Your task to perform on an android device: set an alarm Image 0: 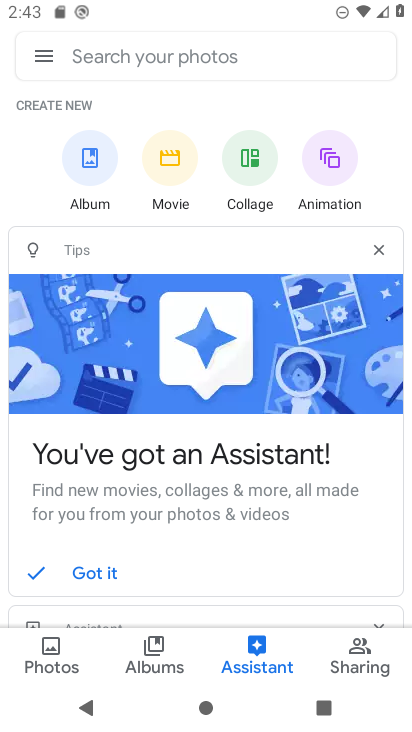
Step 0: press home button
Your task to perform on an android device: set an alarm Image 1: 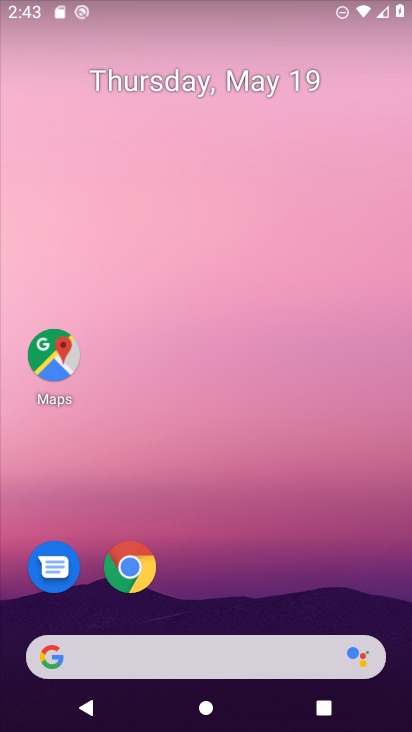
Step 1: drag from (245, 533) to (230, 65)
Your task to perform on an android device: set an alarm Image 2: 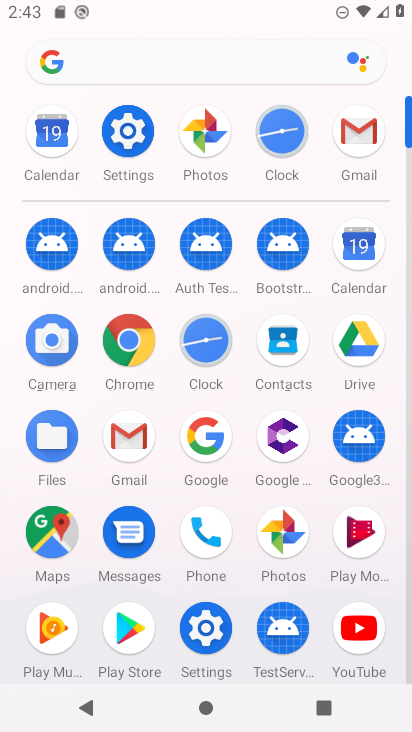
Step 2: click (278, 131)
Your task to perform on an android device: set an alarm Image 3: 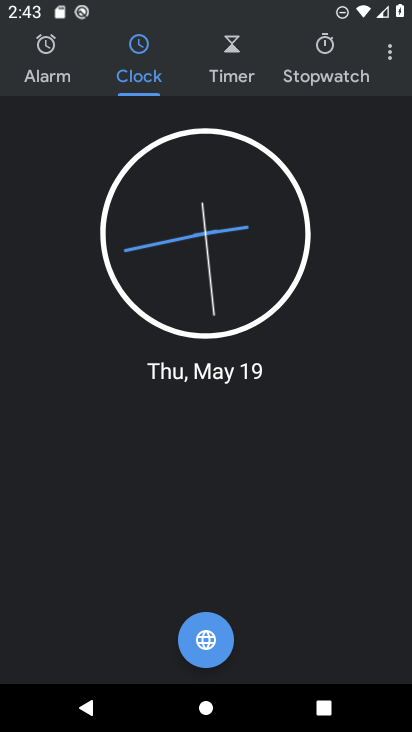
Step 3: click (54, 48)
Your task to perform on an android device: set an alarm Image 4: 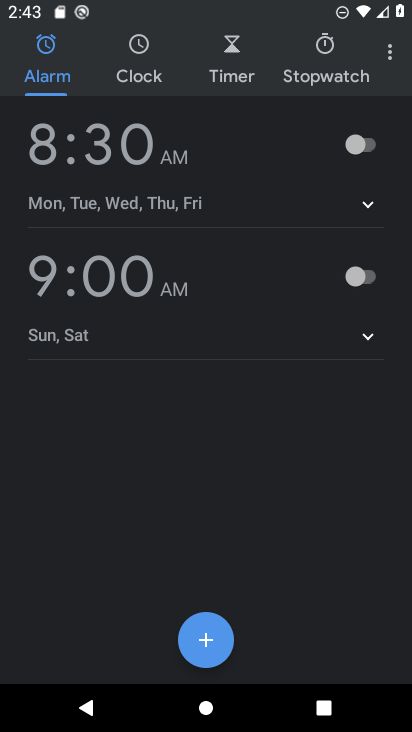
Step 4: click (206, 634)
Your task to perform on an android device: set an alarm Image 5: 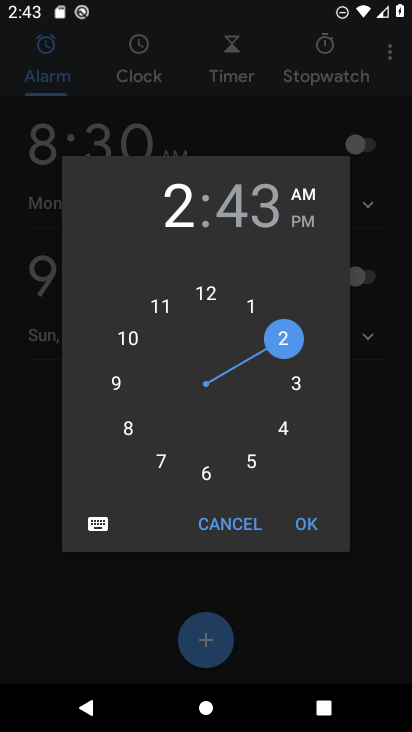
Step 5: click (251, 208)
Your task to perform on an android device: set an alarm Image 6: 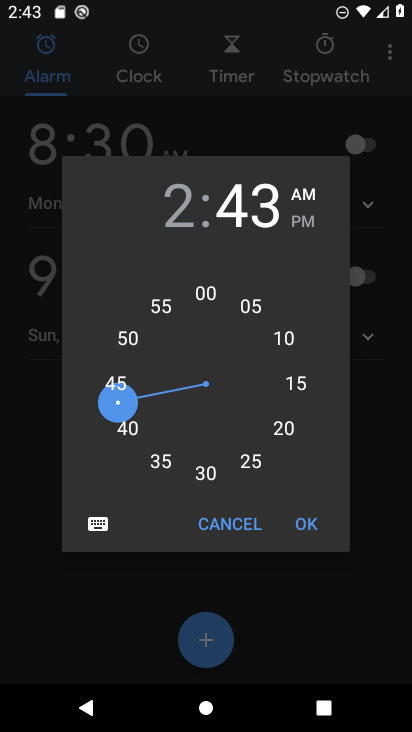
Step 6: click (210, 290)
Your task to perform on an android device: set an alarm Image 7: 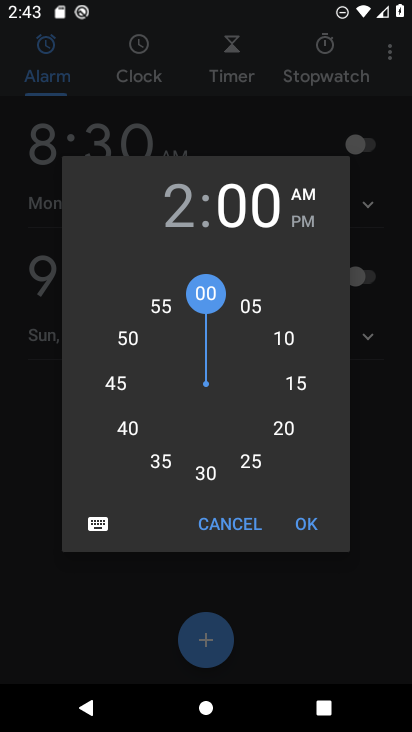
Step 7: click (299, 216)
Your task to perform on an android device: set an alarm Image 8: 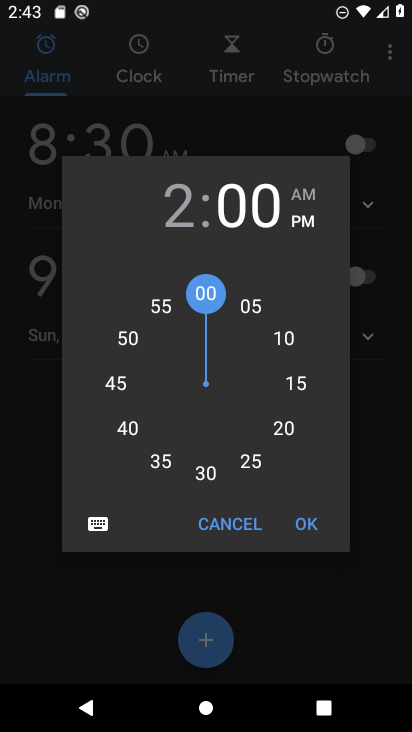
Step 8: task complete